Your task to perform on an android device: Search for Mexican restaurants on Maps Image 0: 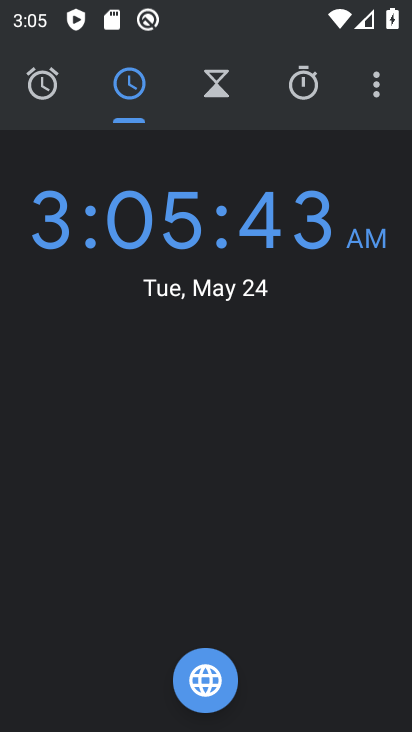
Step 0: press home button
Your task to perform on an android device: Search for Mexican restaurants on Maps Image 1: 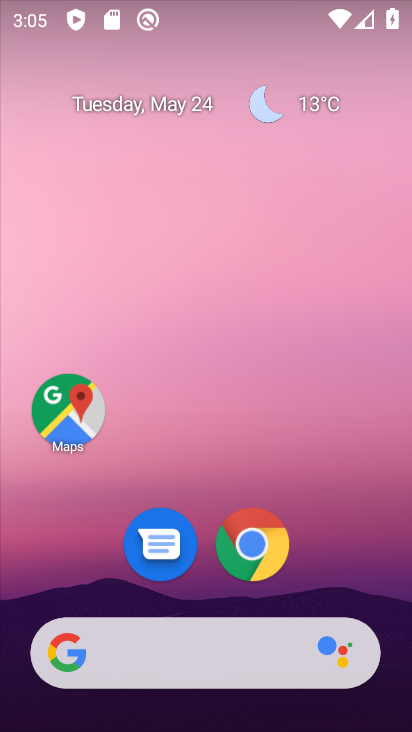
Step 1: drag from (365, 529) to (206, 5)
Your task to perform on an android device: Search for Mexican restaurants on Maps Image 2: 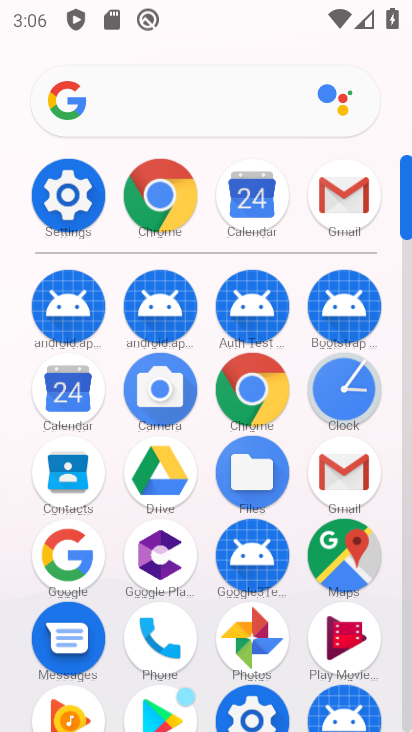
Step 2: click (352, 573)
Your task to perform on an android device: Search for Mexican restaurants on Maps Image 3: 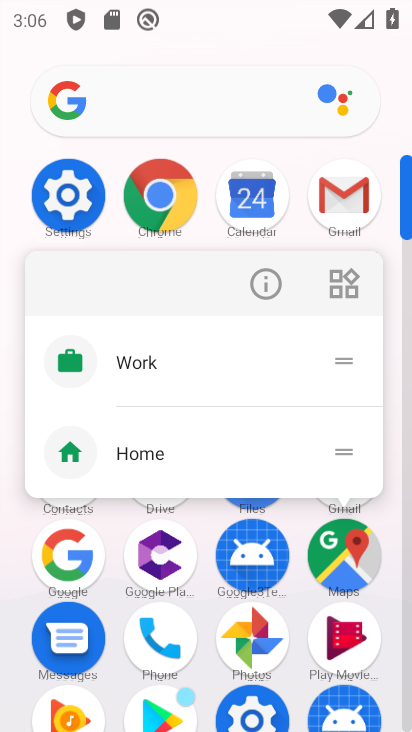
Step 3: click (352, 573)
Your task to perform on an android device: Search for Mexican restaurants on Maps Image 4: 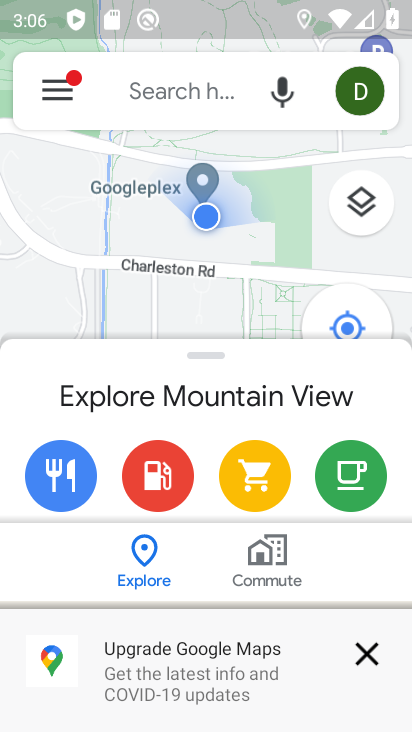
Step 4: click (162, 94)
Your task to perform on an android device: Search for Mexican restaurants on Maps Image 5: 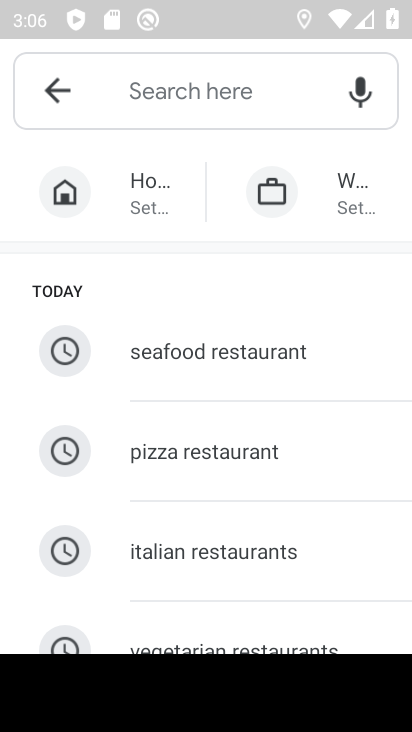
Step 5: drag from (237, 572) to (233, 162)
Your task to perform on an android device: Search for Mexican restaurants on Maps Image 6: 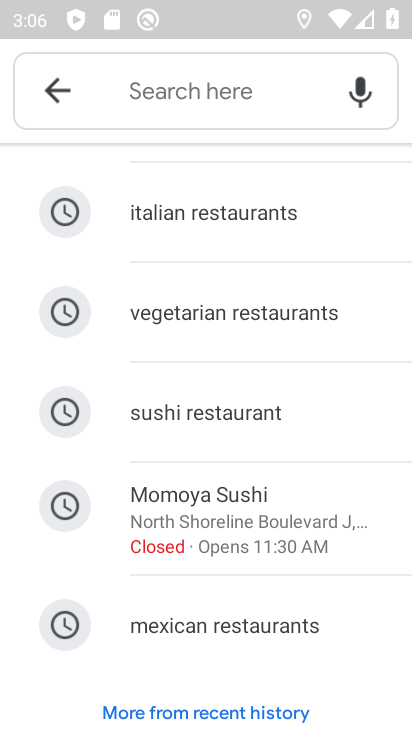
Step 6: click (209, 632)
Your task to perform on an android device: Search for Mexican restaurants on Maps Image 7: 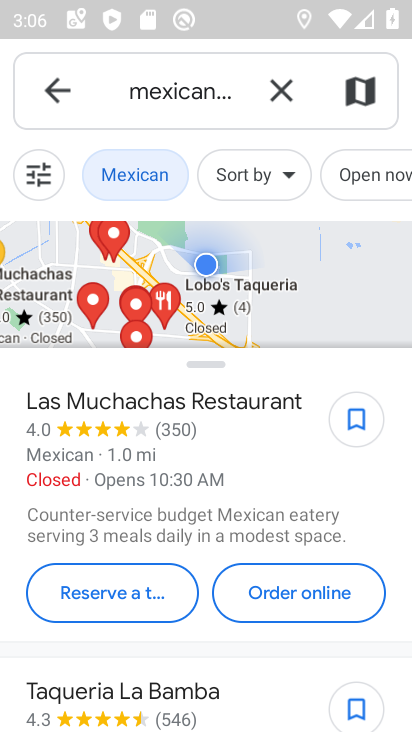
Step 7: task complete